Your task to perform on an android device: Play the last video I watched on Youtube Image 0: 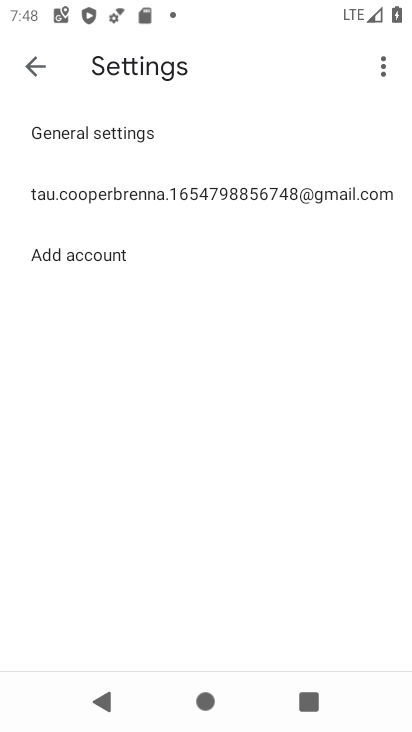
Step 0: press home button
Your task to perform on an android device: Play the last video I watched on Youtube Image 1: 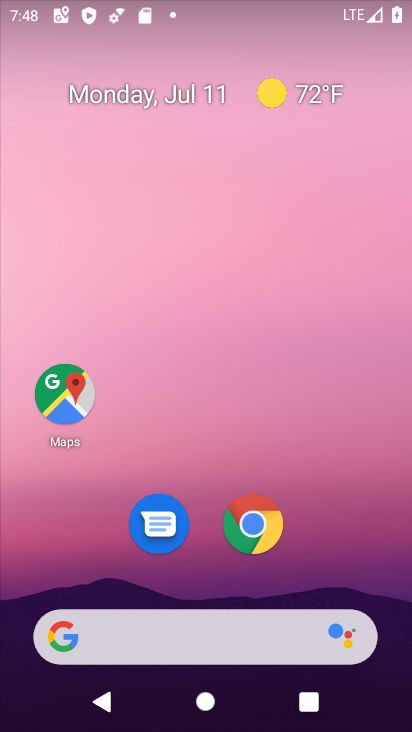
Step 1: drag from (196, 428) to (226, 0)
Your task to perform on an android device: Play the last video I watched on Youtube Image 2: 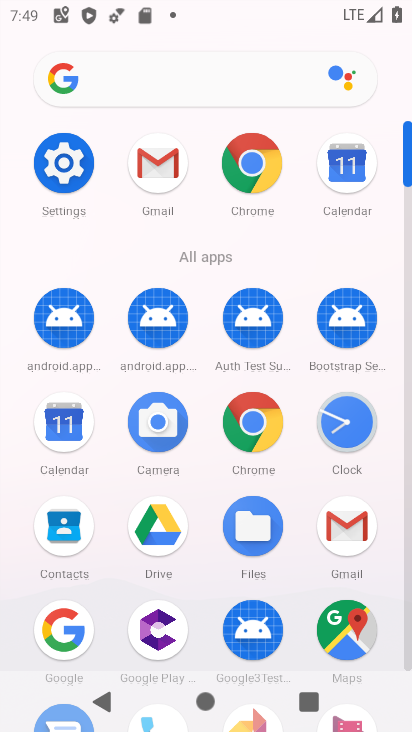
Step 2: drag from (197, 565) to (199, 157)
Your task to perform on an android device: Play the last video I watched on Youtube Image 3: 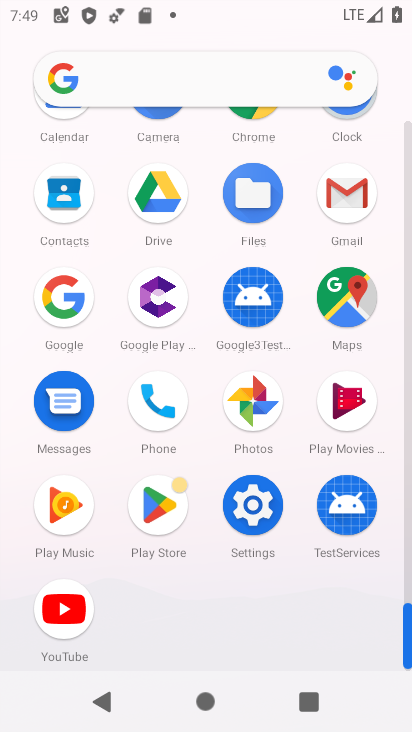
Step 3: click (75, 600)
Your task to perform on an android device: Play the last video I watched on Youtube Image 4: 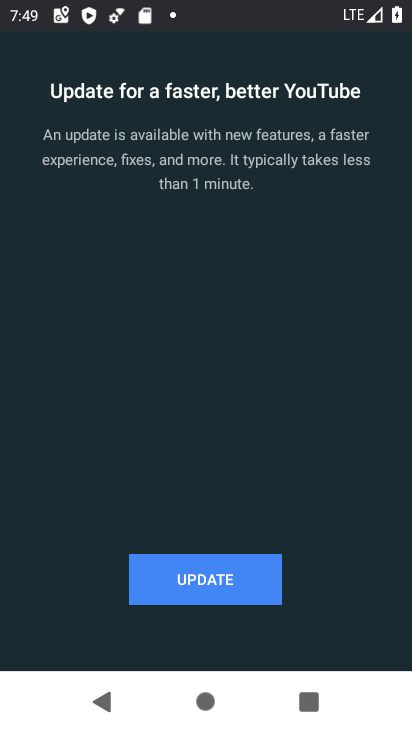
Step 4: click (218, 580)
Your task to perform on an android device: Play the last video I watched on Youtube Image 5: 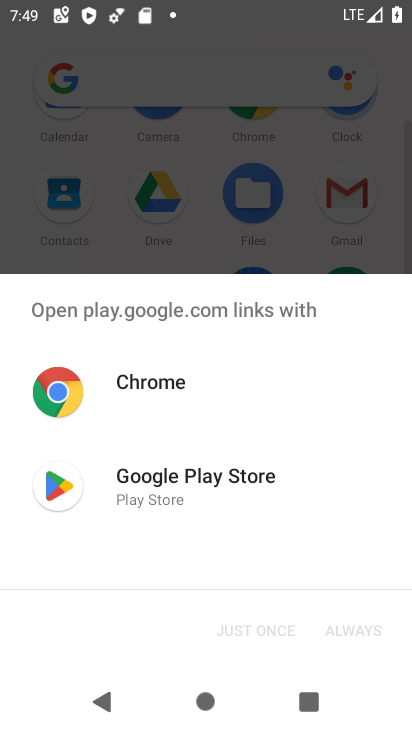
Step 5: click (166, 478)
Your task to perform on an android device: Play the last video I watched on Youtube Image 6: 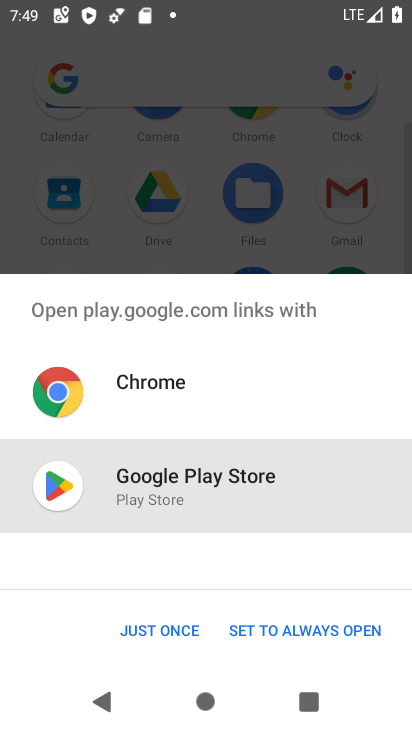
Step 6: click (155, 625)
Your task to perform on an android device: Play the last video I watched on Youtube Image 7: 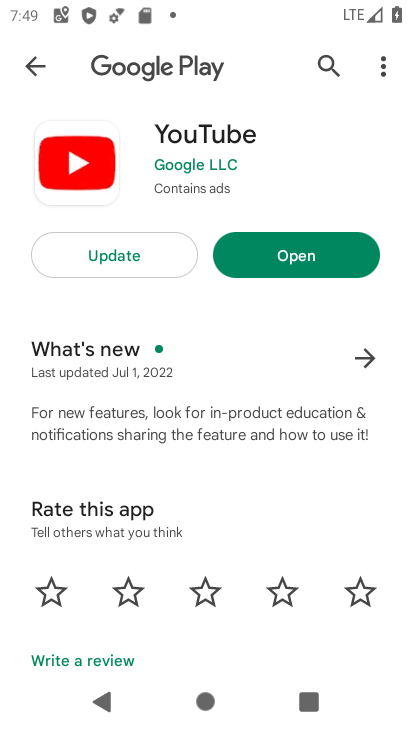
Step 7: click (136, 252)
Your task to perform on an android device: Play the last video I watched on Youtube Image 8: 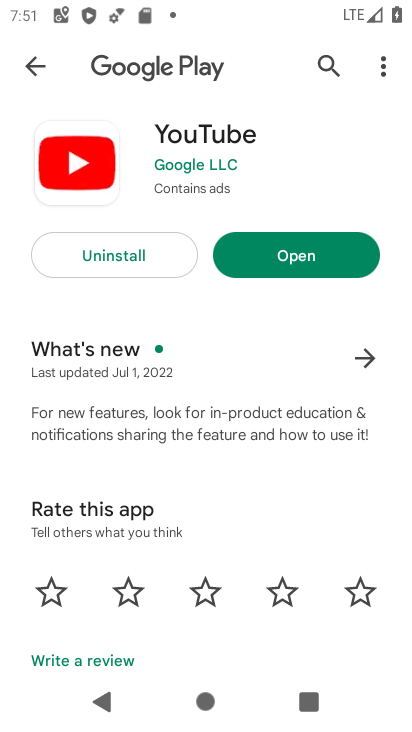
Step 8: click (294, 265)
Your task to perform on an android device: Play the last video I watched on Youtube Image 9: 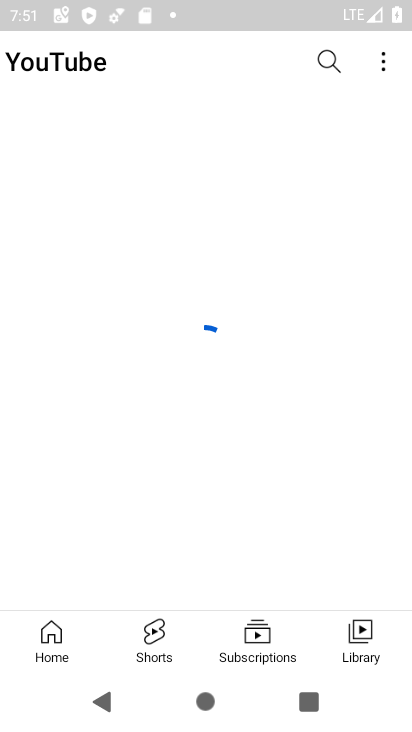
Step 9: click (359, 629)
Your task to perform on an android device: Play the last video I watched on Youtube Image 10: 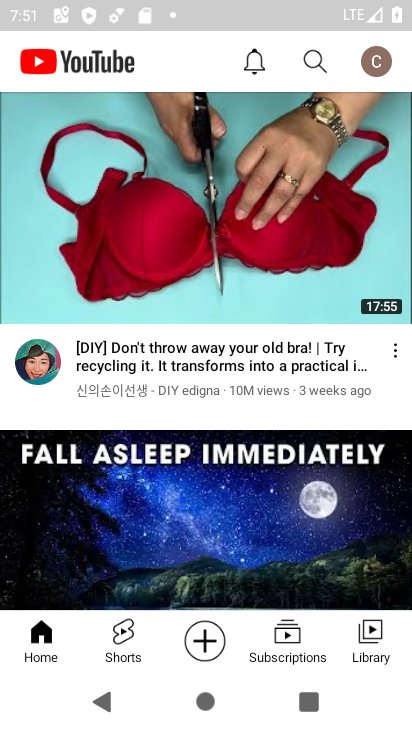
Step 10: click (368, 633)
Your task to perform on an android device: Play the last video I watched on Youtube Image 11: 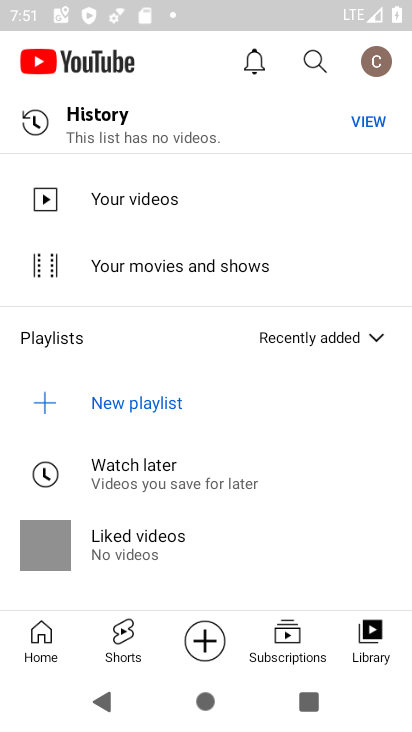
Step 11: click (370, 336)
Your task to perform on an android device: Play the last video I watched on Youtube Image 12: 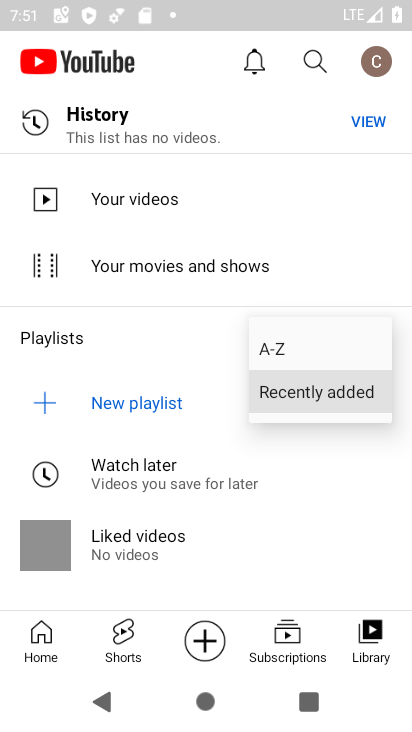
Step 12: click (352, 394)
Your task to perform on an android device: Play the last video I watched on Youtube Image 13: 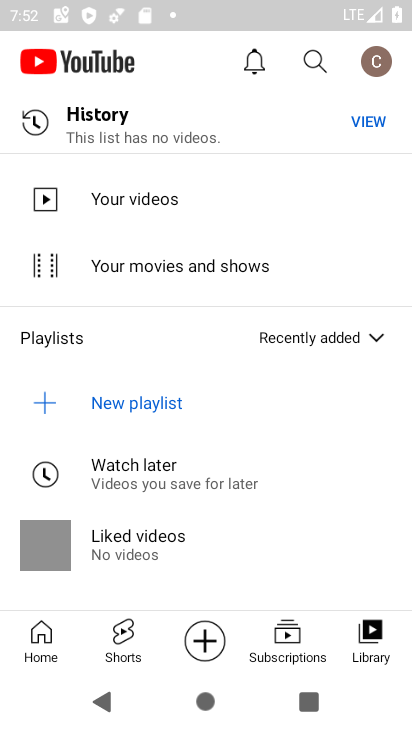
Step 13: task complete